Your task to perform on an android device: Show me productivity apps on the Play Store Image 0: 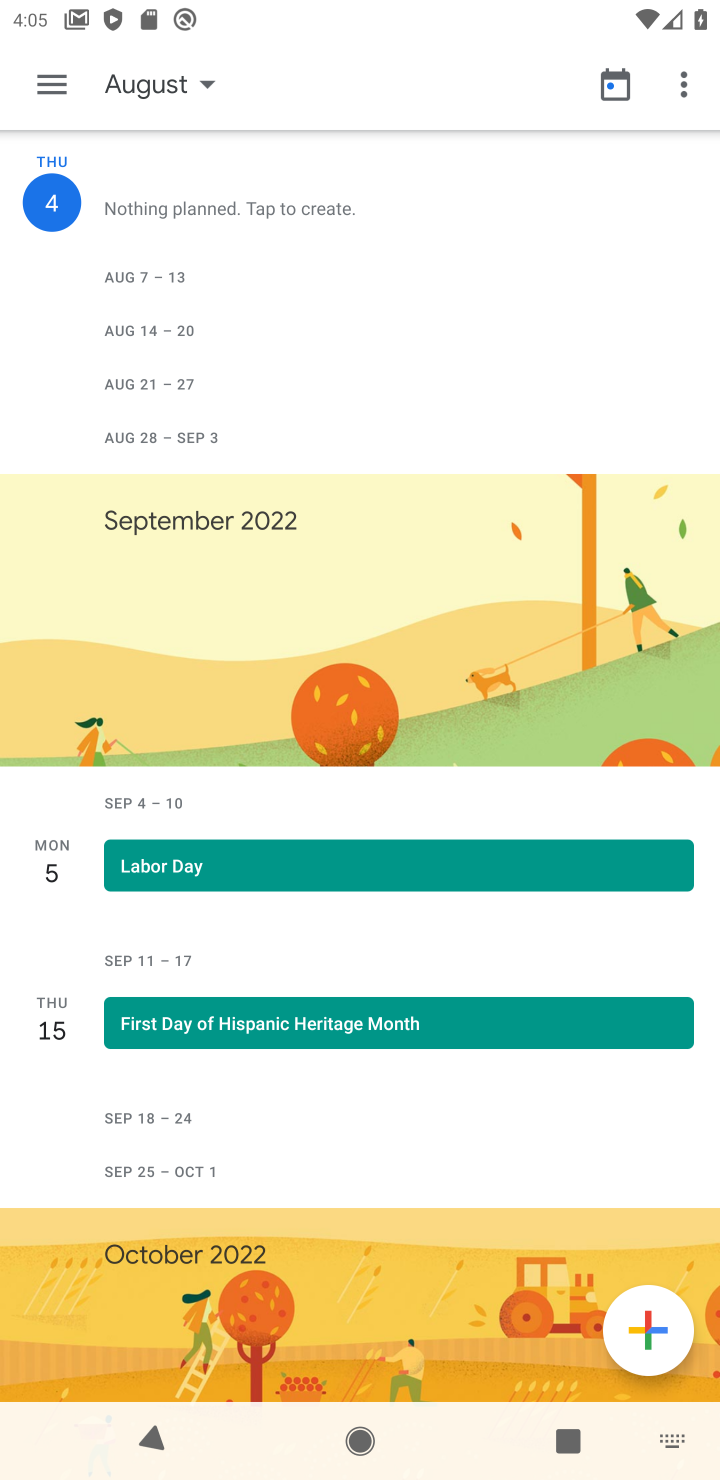
Step 0: press back button
Your task to perform on an android device: Show me productivity apps on the Play Store Image 1: 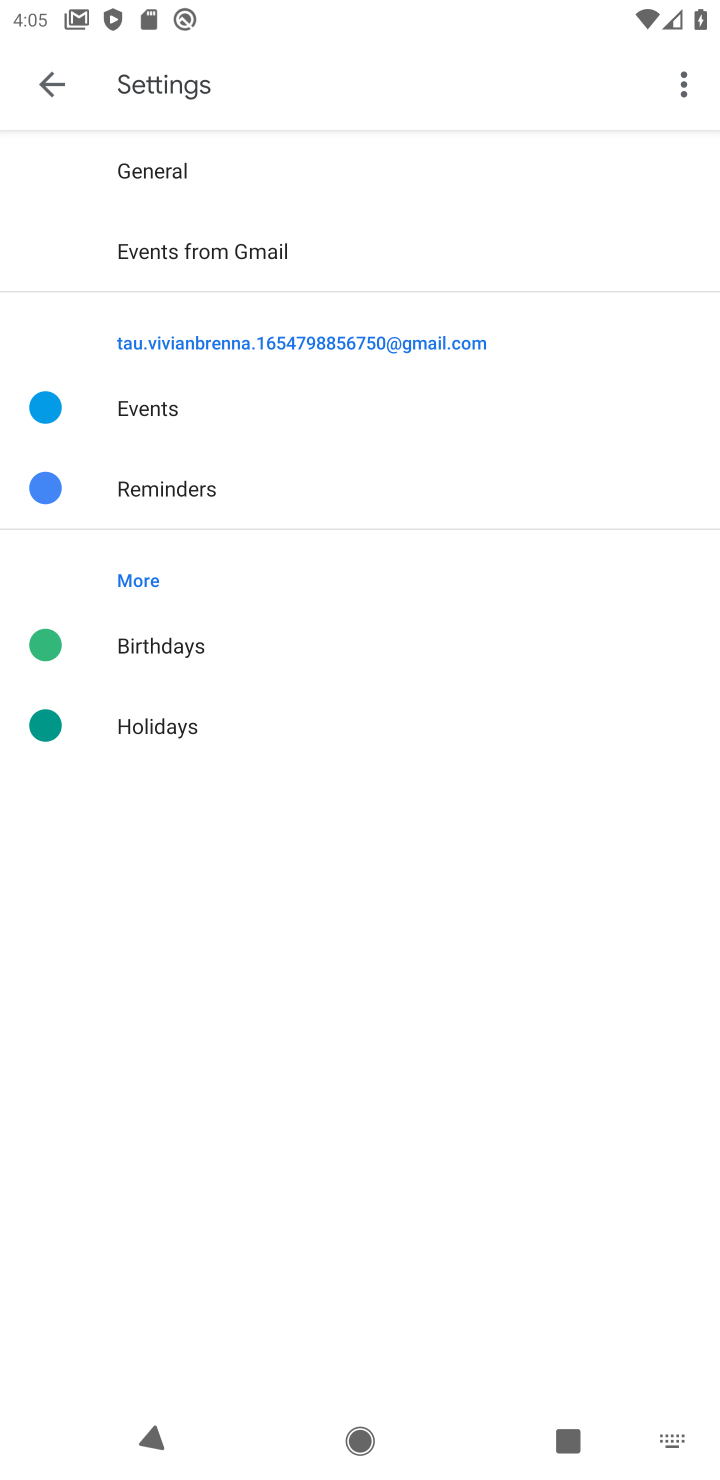
Step 1: press home button
Your task to perform on an android device: Show me productivity apps on the Play Store Image 2: 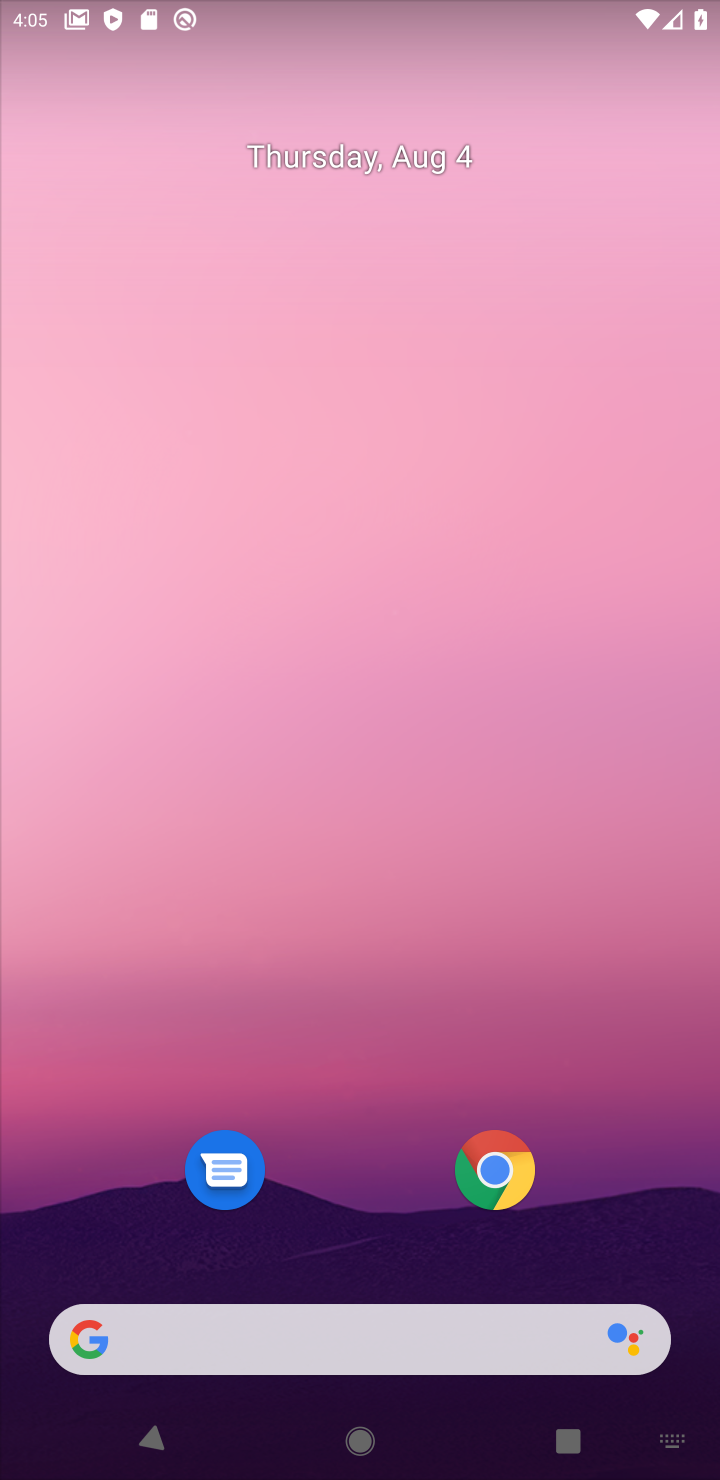
Step 2: drag from (602, 1213) to (427, 20)
Your task to perform on an android device: Show me productivity apps on the Play Store Image 3: 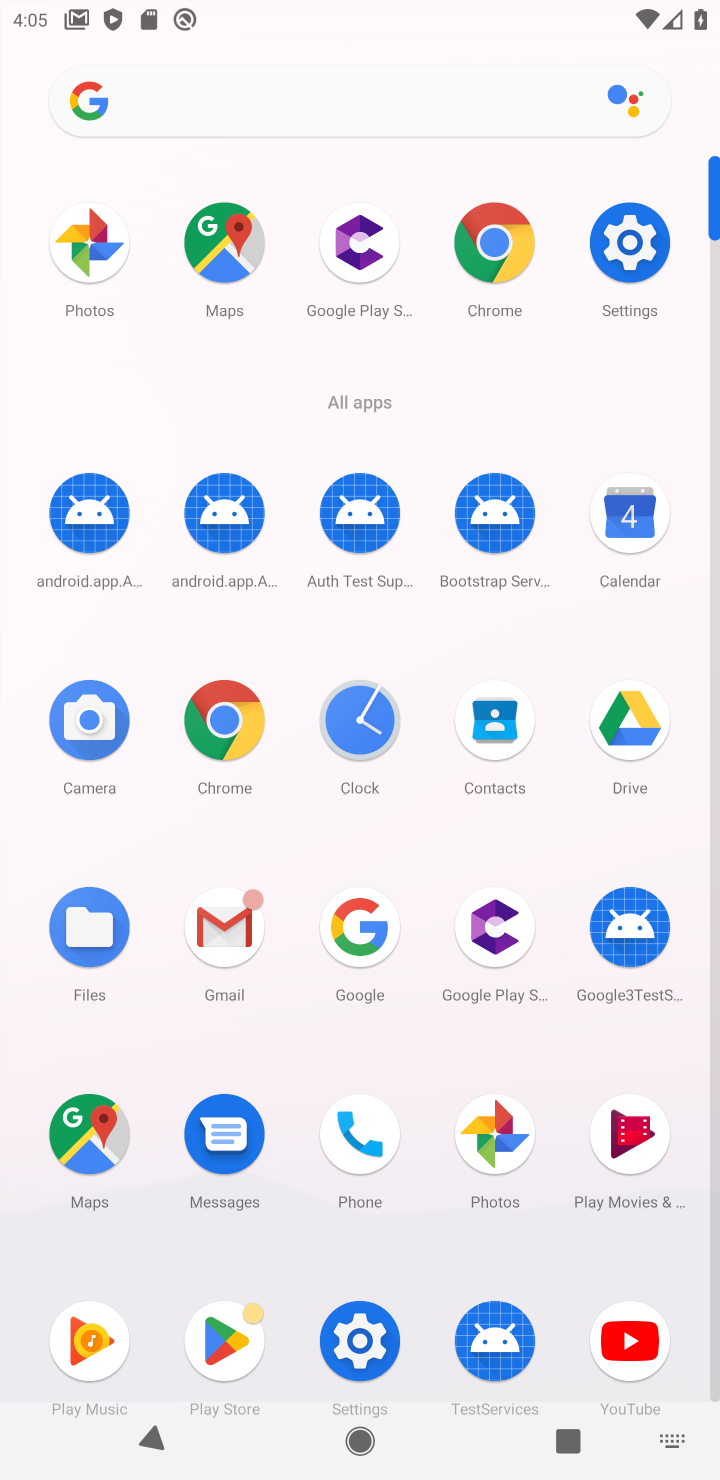
Step 3: click (220, 1338)
Your task to perform on an android device: Show me productivity apps on the Play Store Image 4: 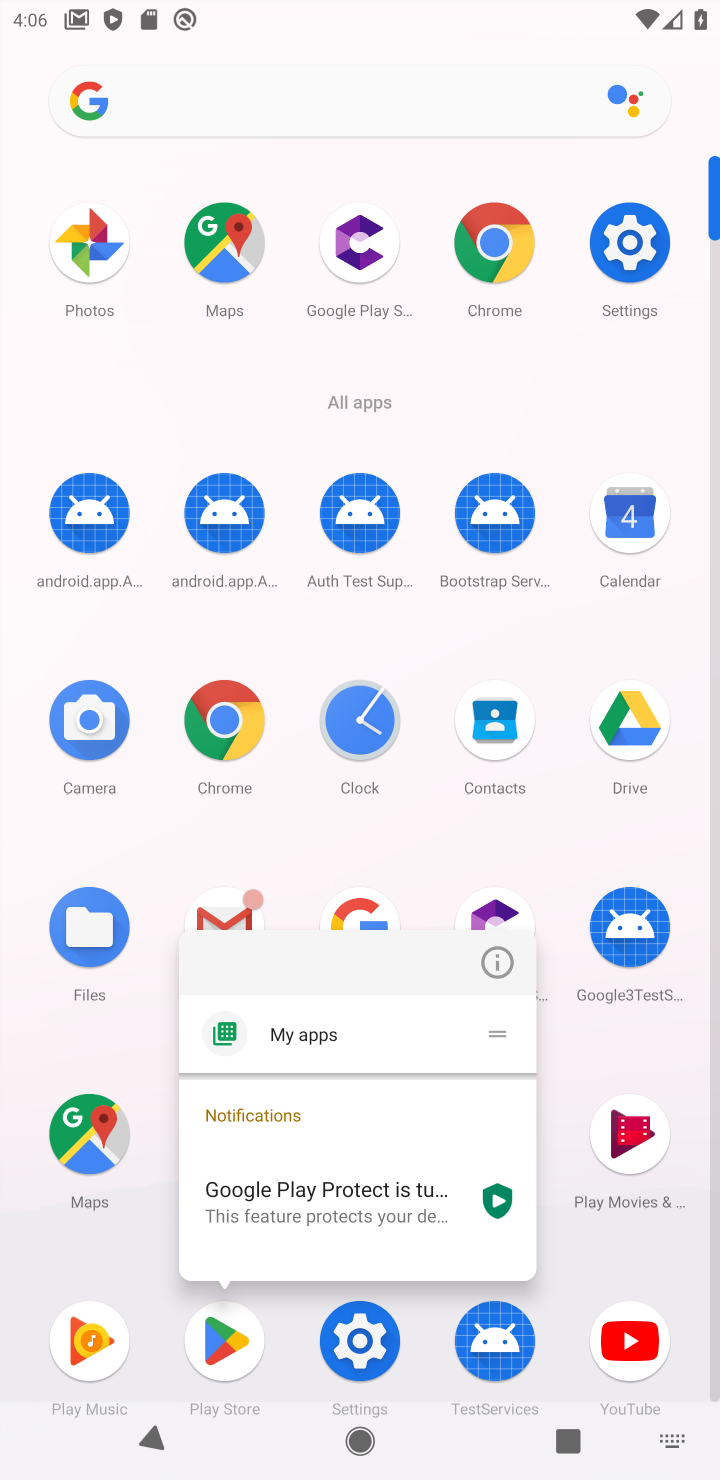
Step 4: click (216, 1325)
Your task to perform on an android device: Show me productivity apps on the Play Store Image 5: 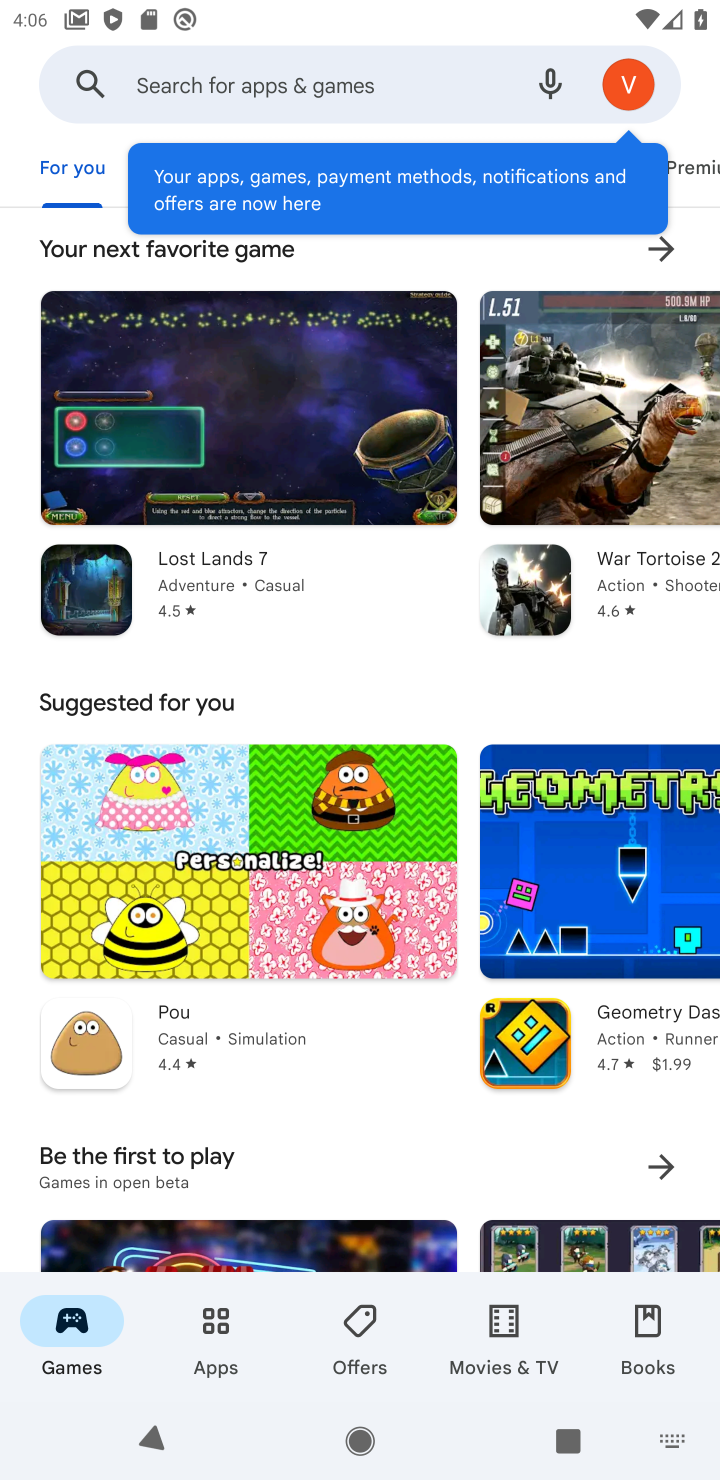
Step 5: click (219, 1329)
Your task to perform on an android device: Show me productivity apps on the Play Store Image 6: 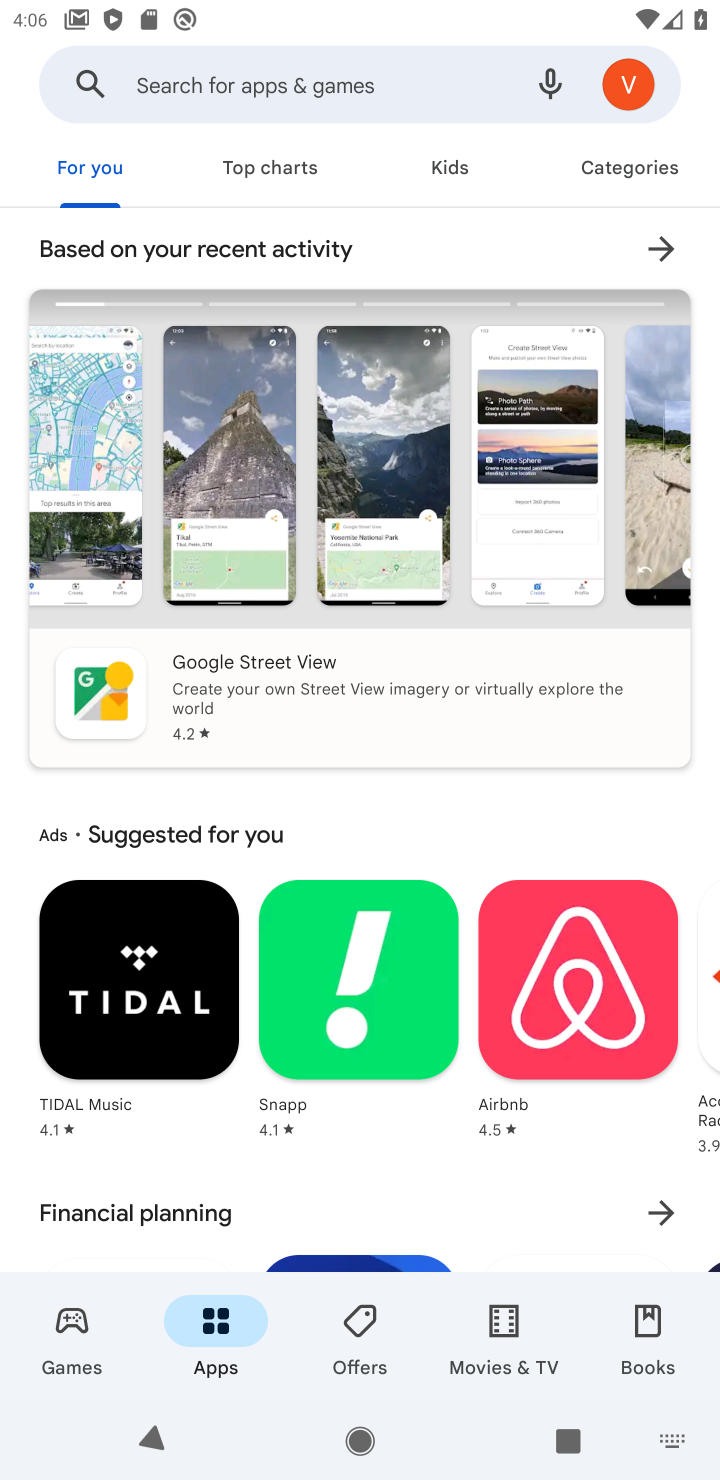
Step 6: click (635, 171)
Your task to perform on an android device: Show me productivity apps on the Play Store Image 7: 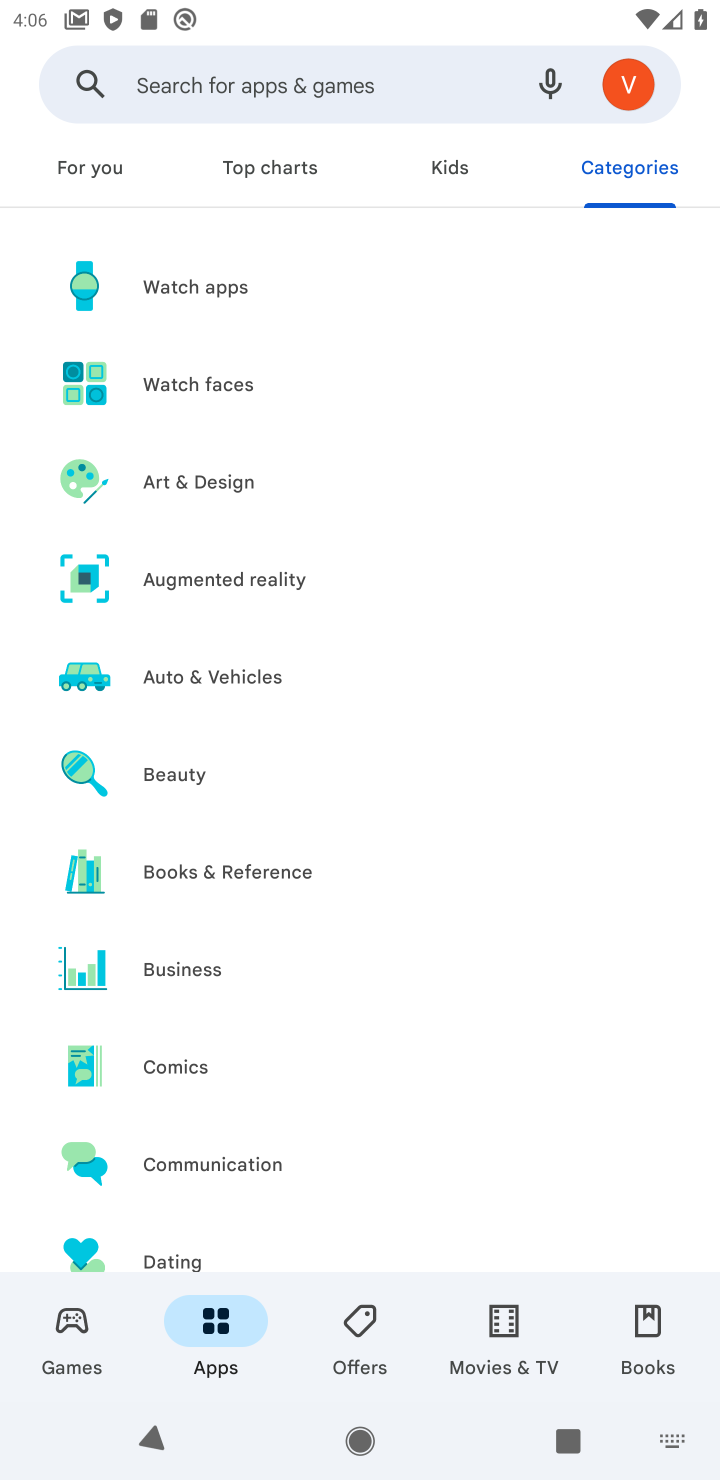
Step 7: drag from (265, 1206) to (242, 11)
Your task to perform on an android device: Show me productivity apps on the Play Store Image 8: 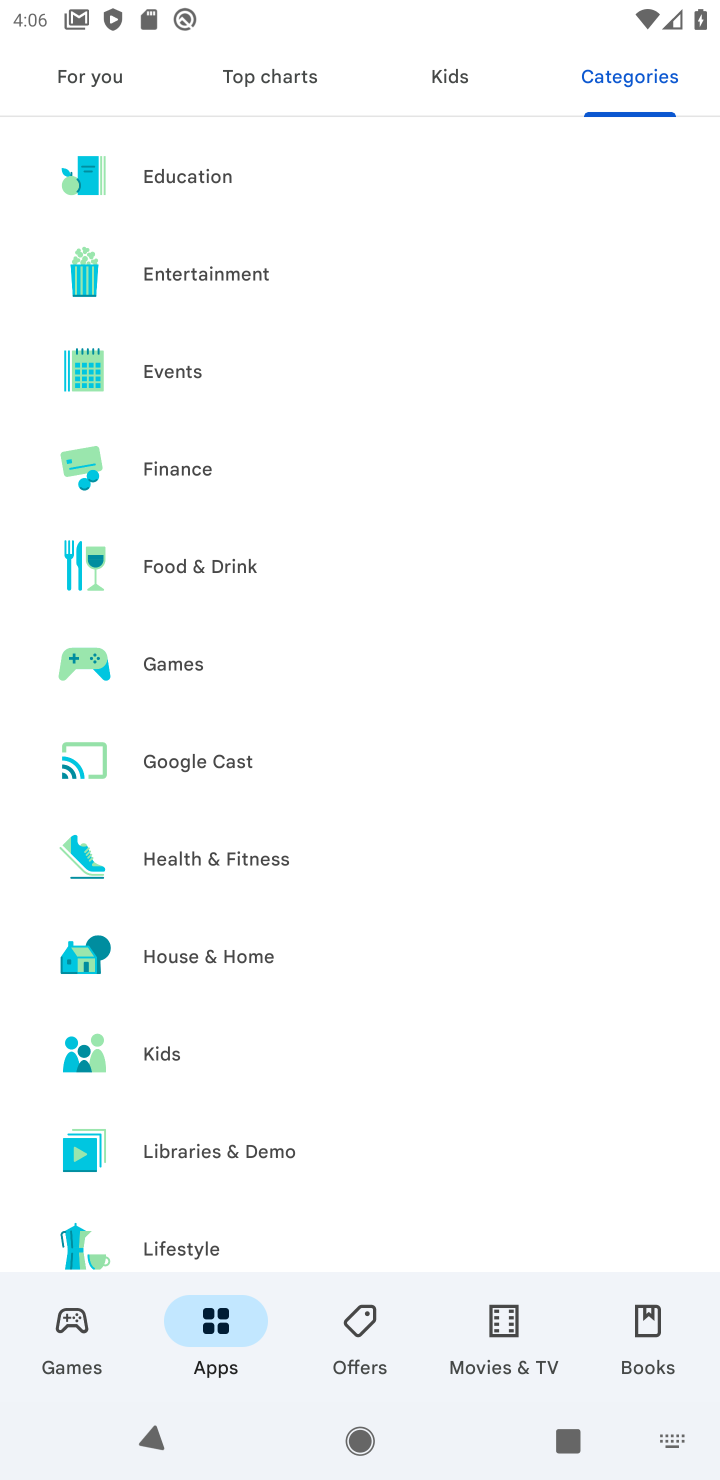
Step 8: drag from (275, 1211) to (241, 3)
Your task to perform on an android device: Show me productivity apps on the Play Store Image 9: 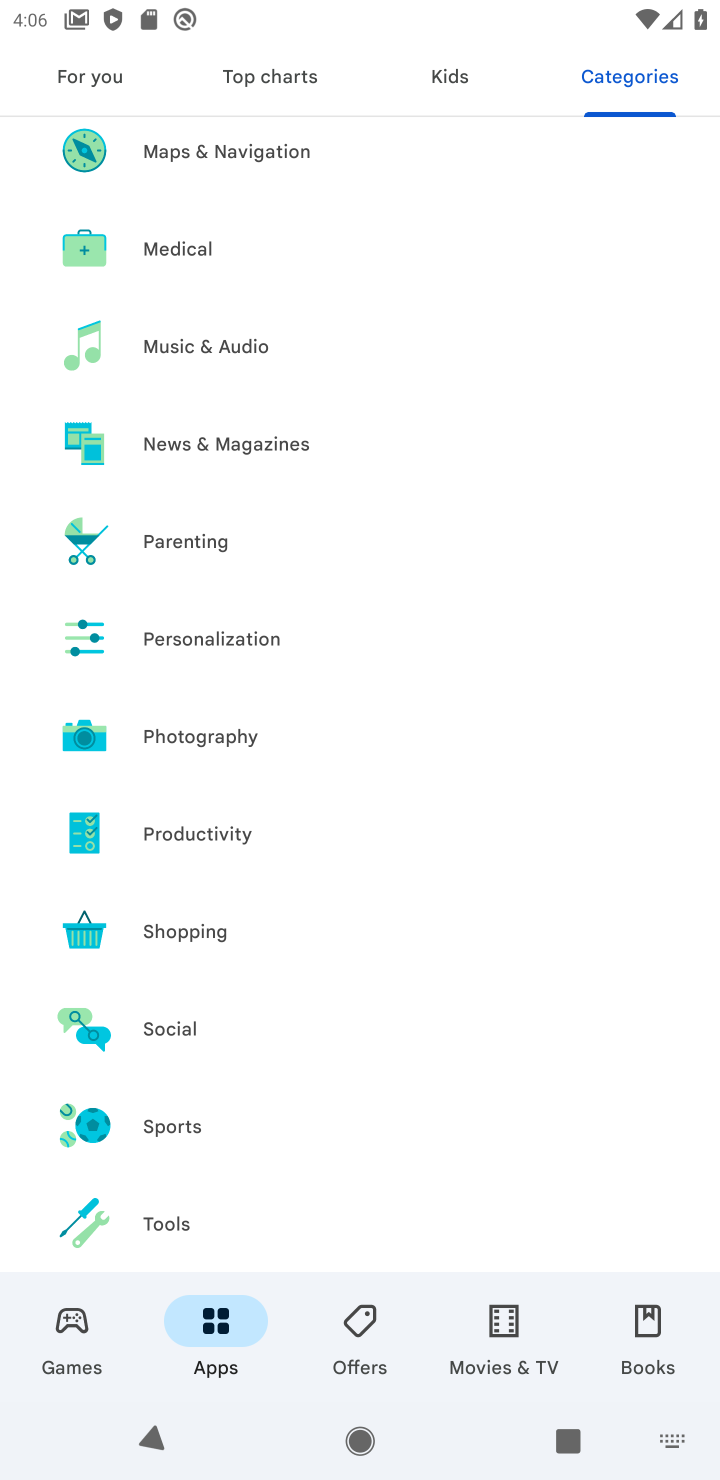
Step 9: click (171, 834)
Your task to perform on an android device: Show me productivity apps on the Play Store Image 10: 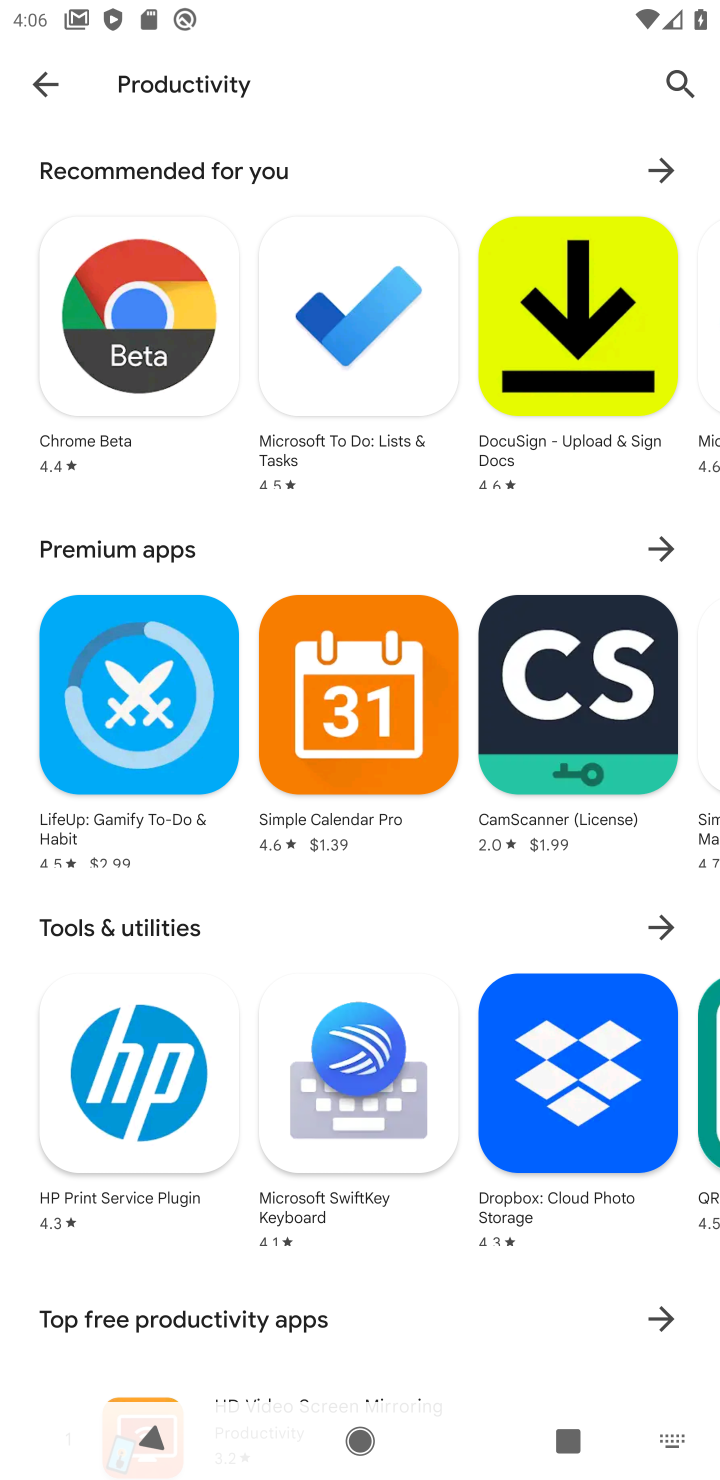
Step 10: task complete